Your task to perform on an android device: Go to Google Image 0: 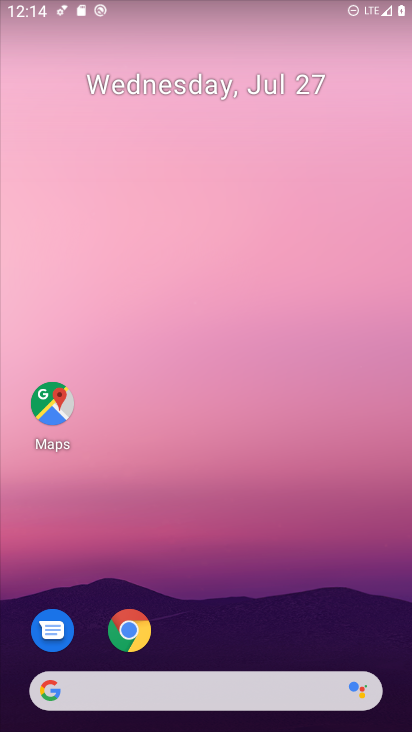
Step 0: click (126, 629)
Your task to perform on an android device: Go to Google Image 1: 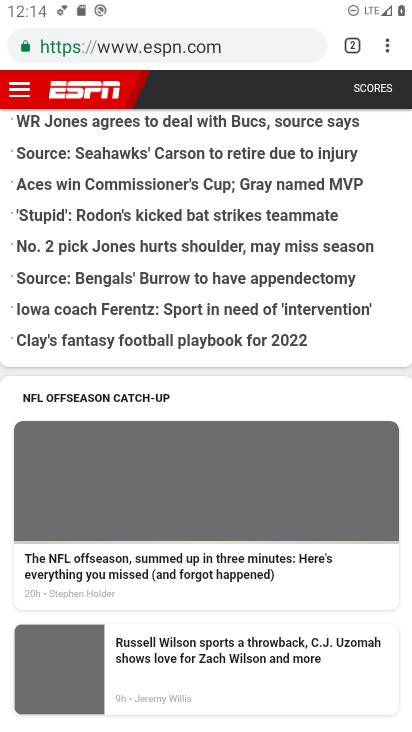
Step 1: task complete